Your task to perform on an android device: star an email in the gmail app Image 0: 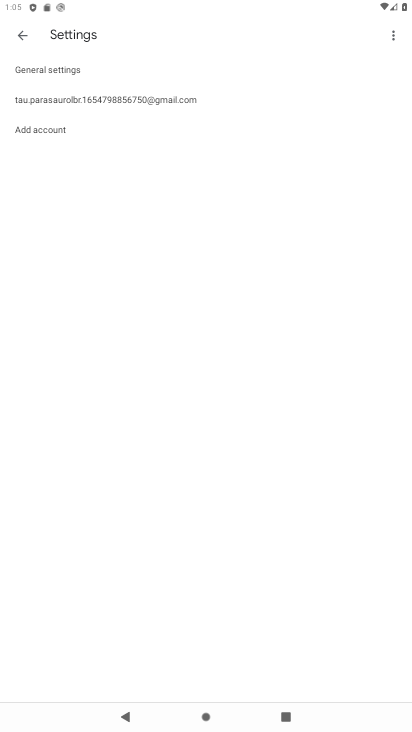
Step 0: press home button
Your task to perform on an android device: star an email in the gmail app Image 1: 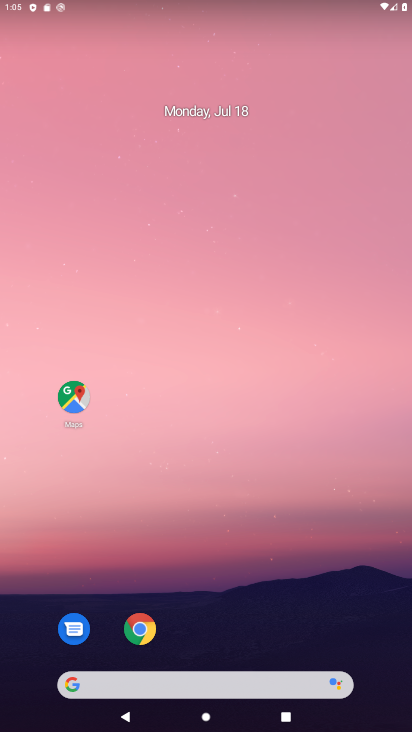
Step 1: drag from (190, 614) to (254, 162)
Your task to perform on an android device: star an email in the gmail app Image 2: 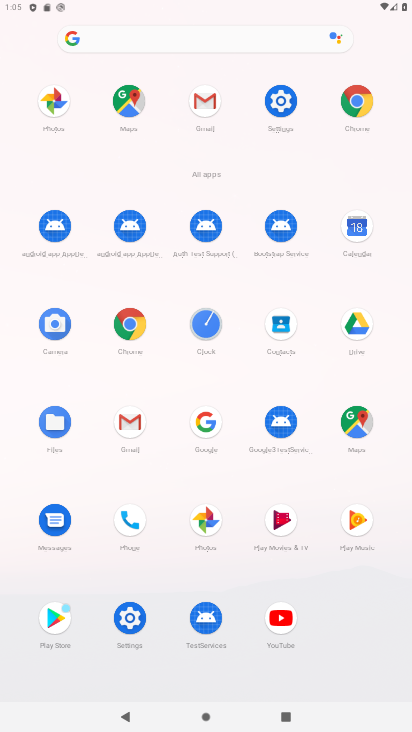
Step 2: click (210, 112)
Your task to perform on an android device: star an email in the gmail app Image 3: 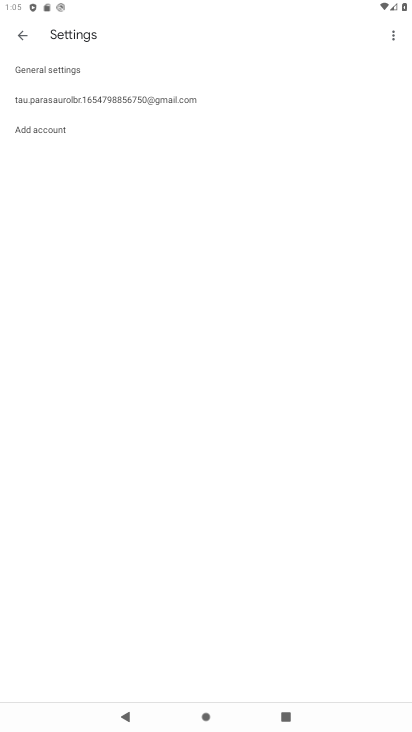
Step 3: click (33, 42)
Your task to perform on an android device: star an email in the gmail app Image 4: 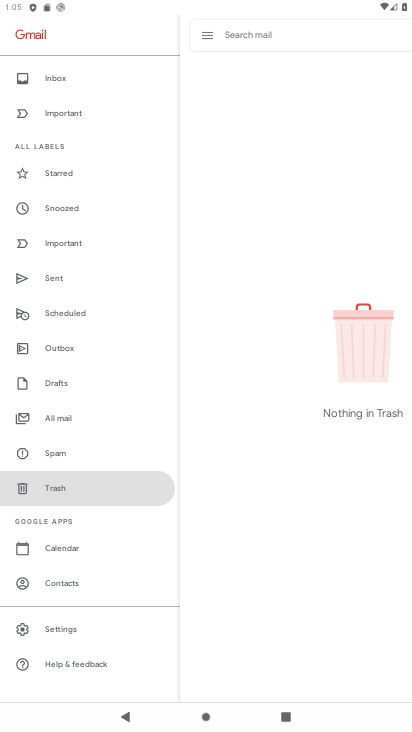
Step 4: click (91, 87)
Your task to perform on an android device: star an email in the gmail app Image 5: 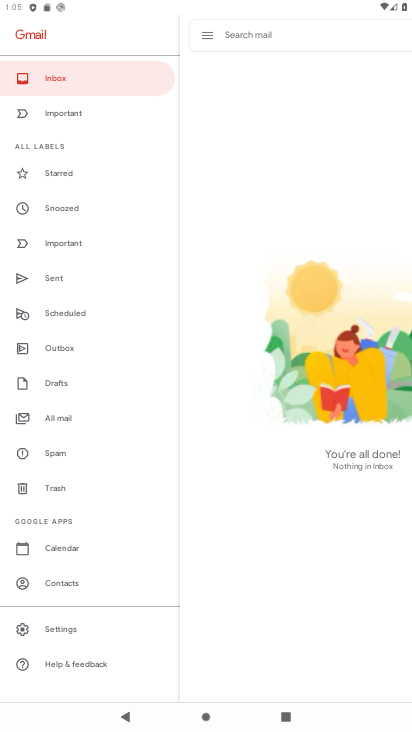
Step 5: task complete